Your task to perform on an android device: allow notifications from all sites in the chrome app Image 0: 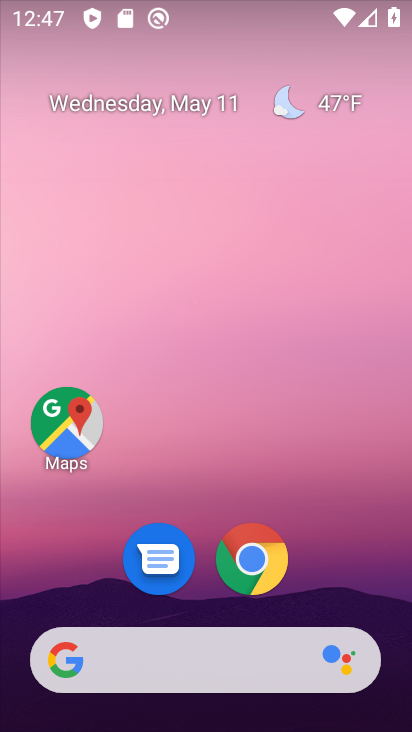
Step 0: drag from (202, 607) to (207, 138)
Your task to perform on an android device: allow notifications from all sites in the chrome app Image 1: 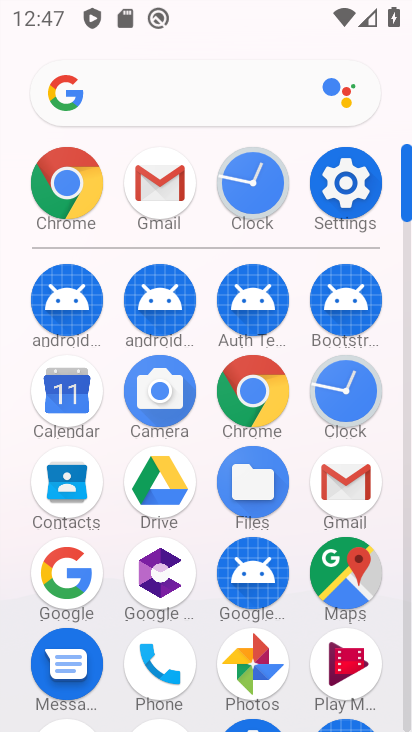
Step 1: click (266, 392)
Your task to perform on an android device: allow notifications from all sites in the chrome app Image 2: 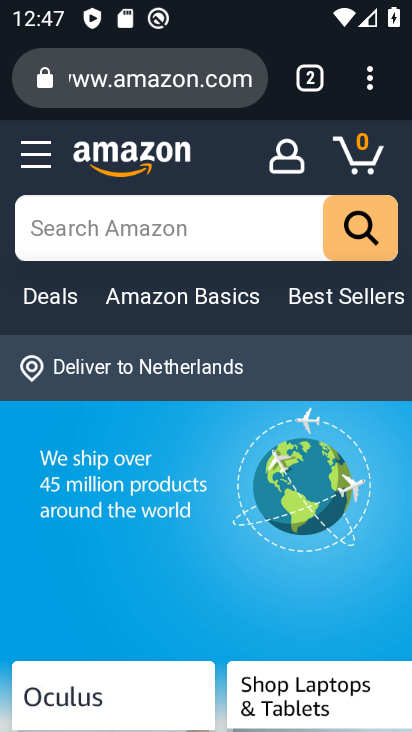
Step 2: click (373, 74)
Your task to perform on an android device: allow notifications from all sites in the chrome app Image 3: 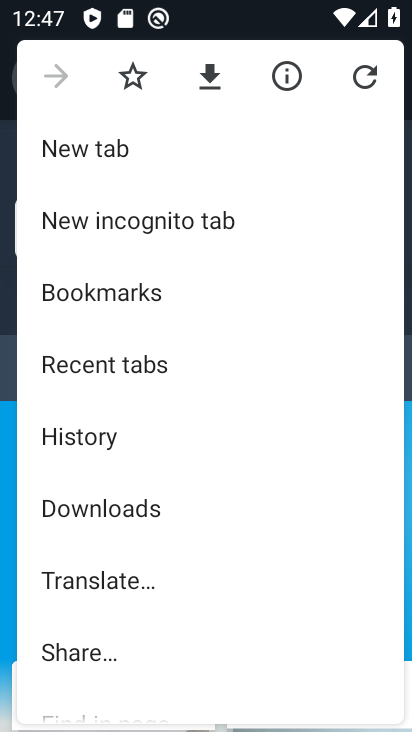
Step 3: drag from (94, 619) to (176, 225)
Your task to perform on an android device: allow notifications from all sites in the chrome app Image 4: 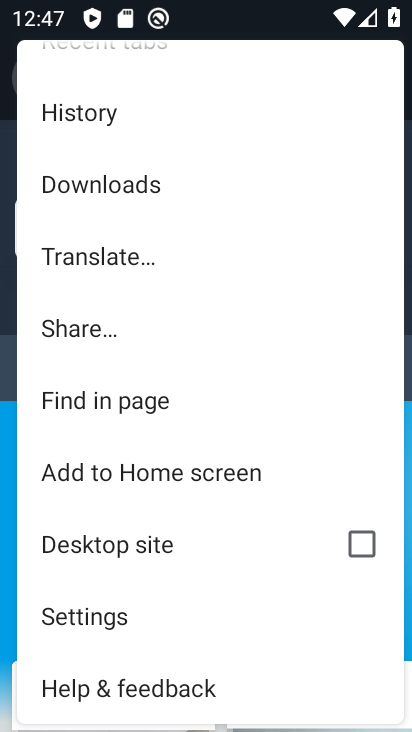
Step 4: click (127, 625)
Your task to perform on an android device: allow notifications from all sites in the chrome app Image 5: 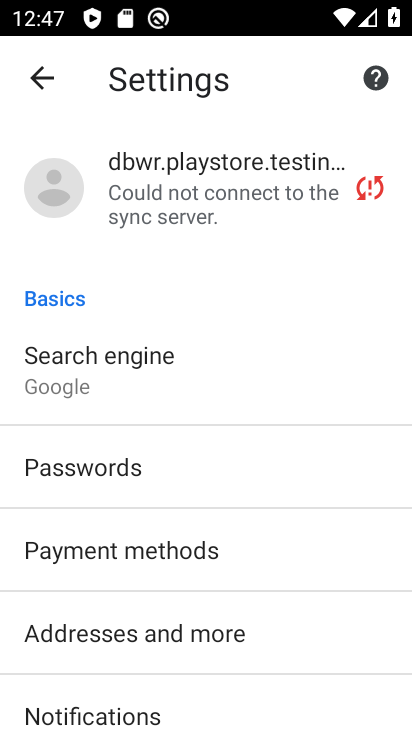
Step 5: drag from (139, 705) to (175, 431)
Your task to perform on an android device: allow notifications from all sites in the chrome app Image 6: 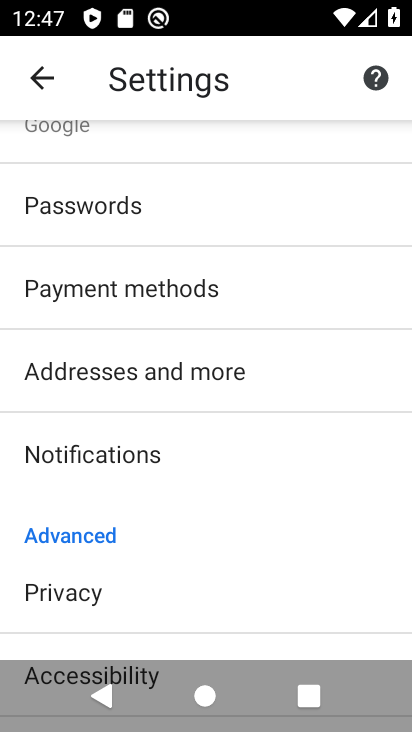
Step 6: click (116, 468)
Your task to perform on an android device: allow notifications from all sites in the chrome app Image 7: 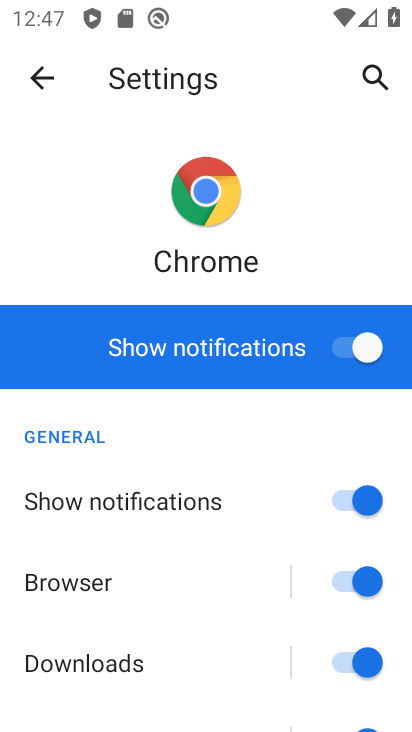
Step 7: task complete